Your task to perform on an android device: Add logitech g pro to the cart on ebay.com Image 0: 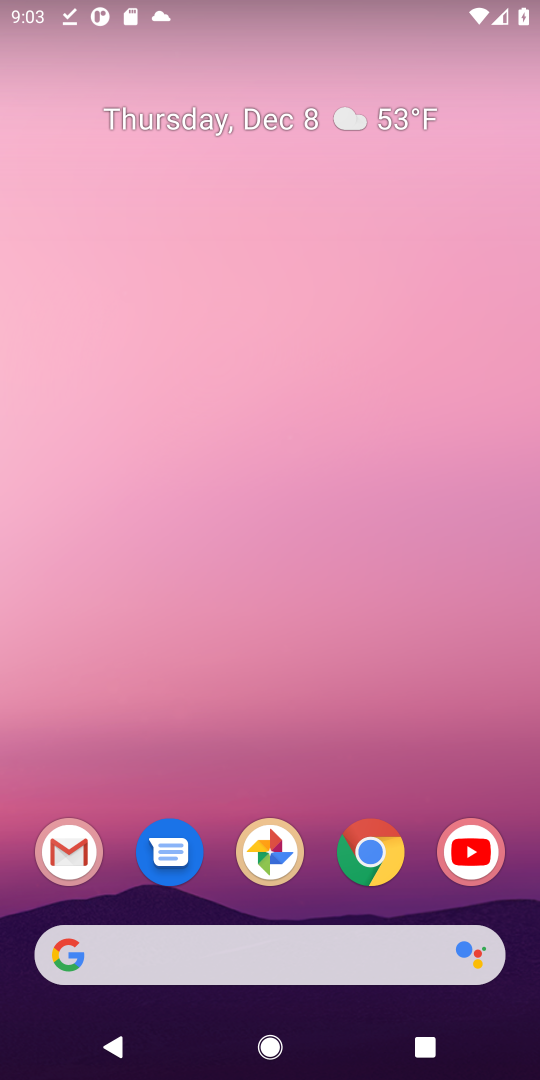
Step 0: click (200, 939)
Your task to perform on an android device: Add logitech g pro to the cart on ebay.com Image 1: 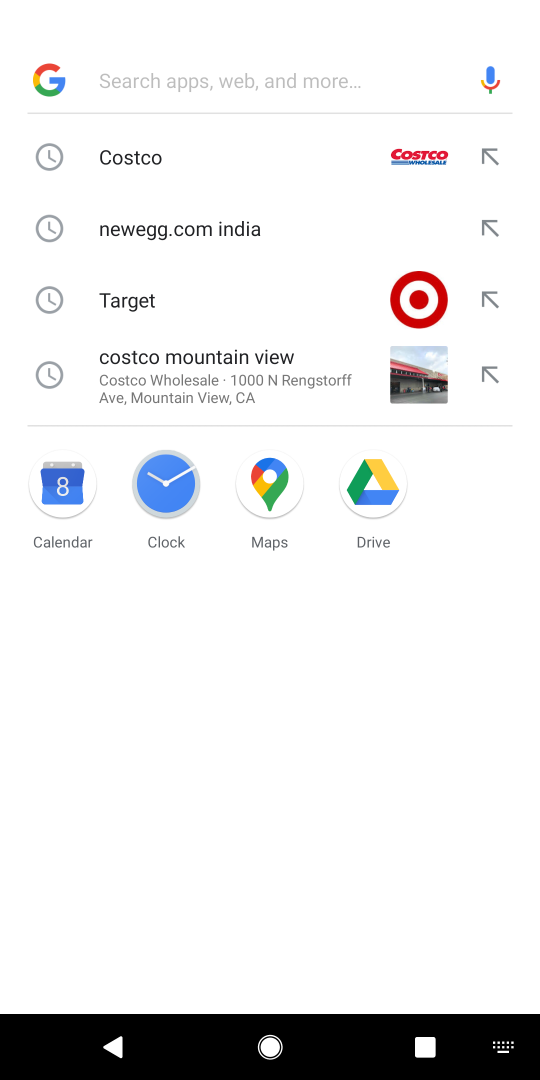
Step 1: type "ebay.com"
Your task to perform on an android device: Add logitech g pro to the cart on ebay.com Image 2: 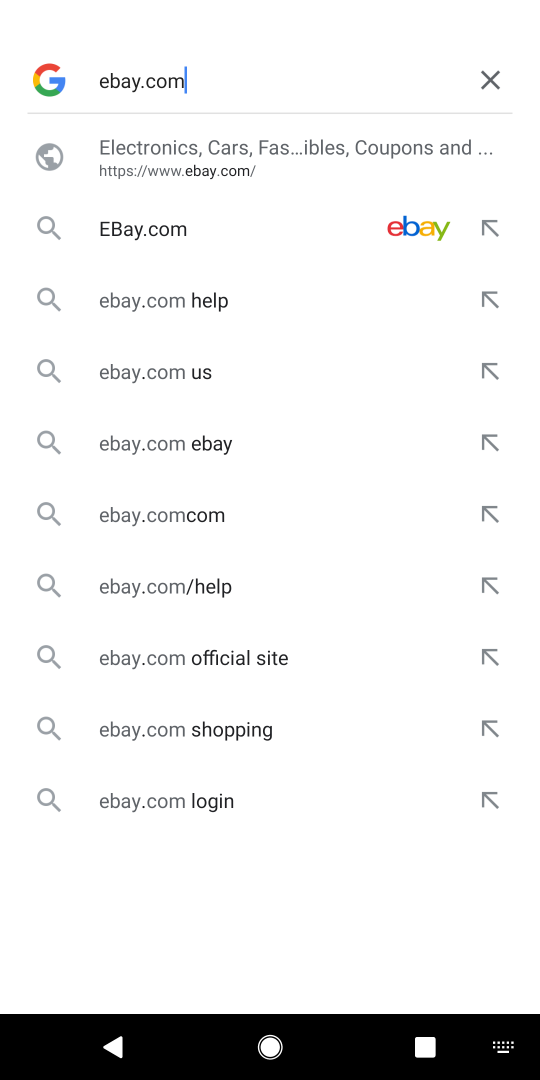
Step 2: click (213, 241)
Your task to perform on an android device: Add logitech g pro to the cart on ebay.com Image 3: 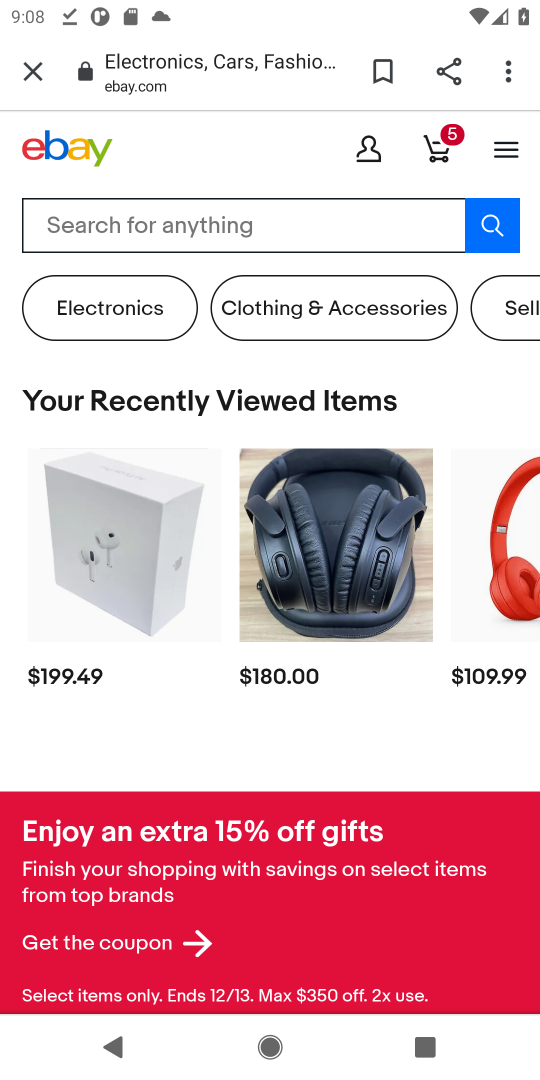
Step 3: click (213, 241)
Your task to perform on an android device: Add logitech g pro to the cart on ebay.com Image 4: 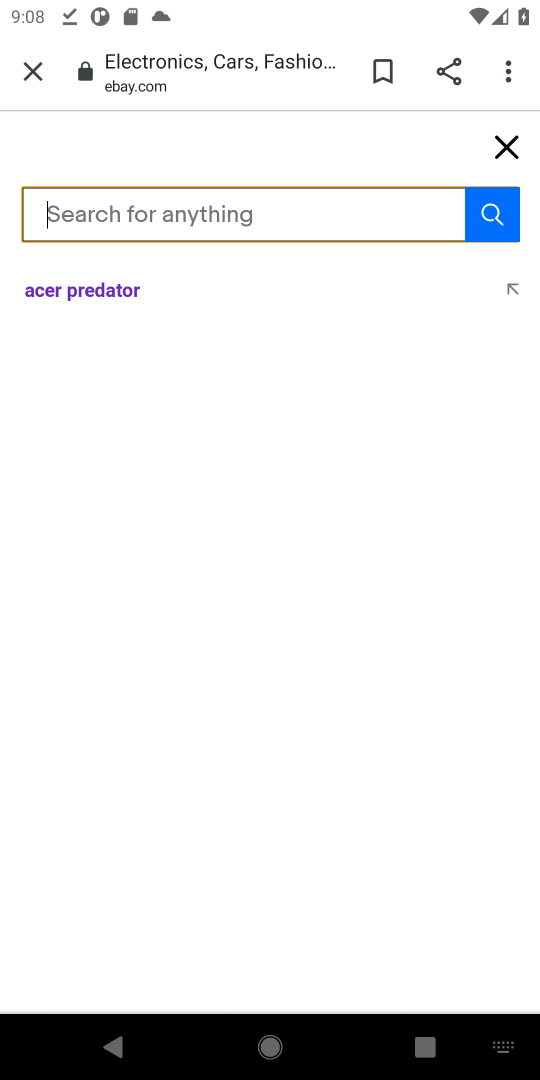
Step 4: type "ebay.com"
Your task to perform on an android device: Add logitech g pro to the cart on ebay.com Image 5: 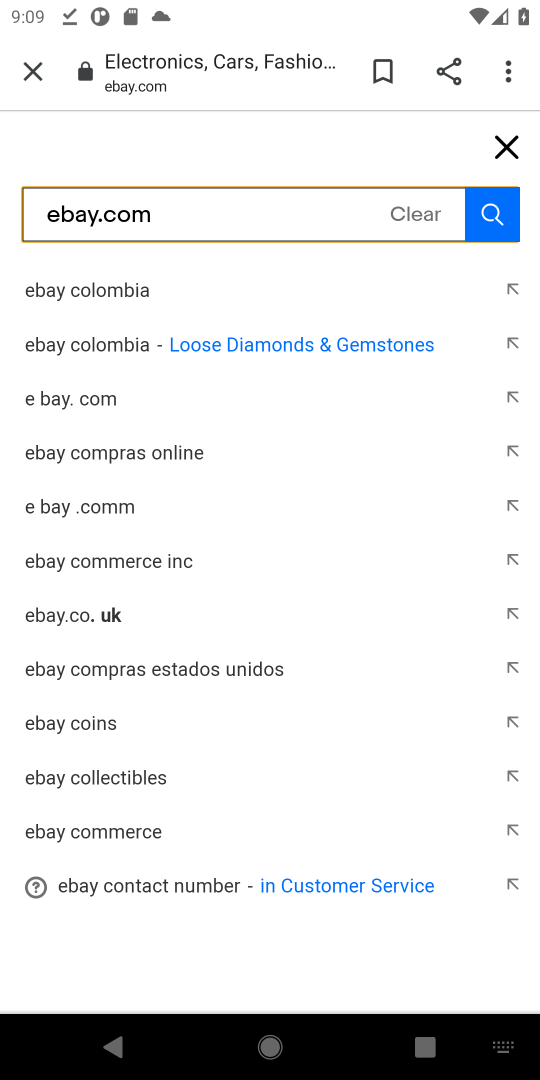
Step 5: click (425, 215)
Your task to perform on an android device: Add logitech g pro to the cart on ebay.com Image 6: 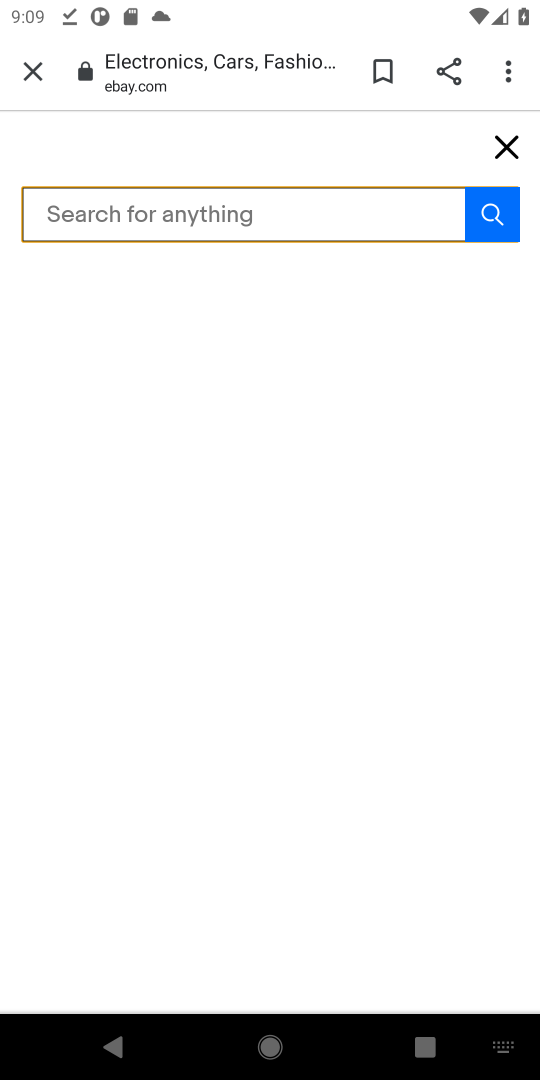
Step 6: type "logitech g pro"
Your task to perform on an android device: Add logitech g pro to the cart on ebay.com Image 7: 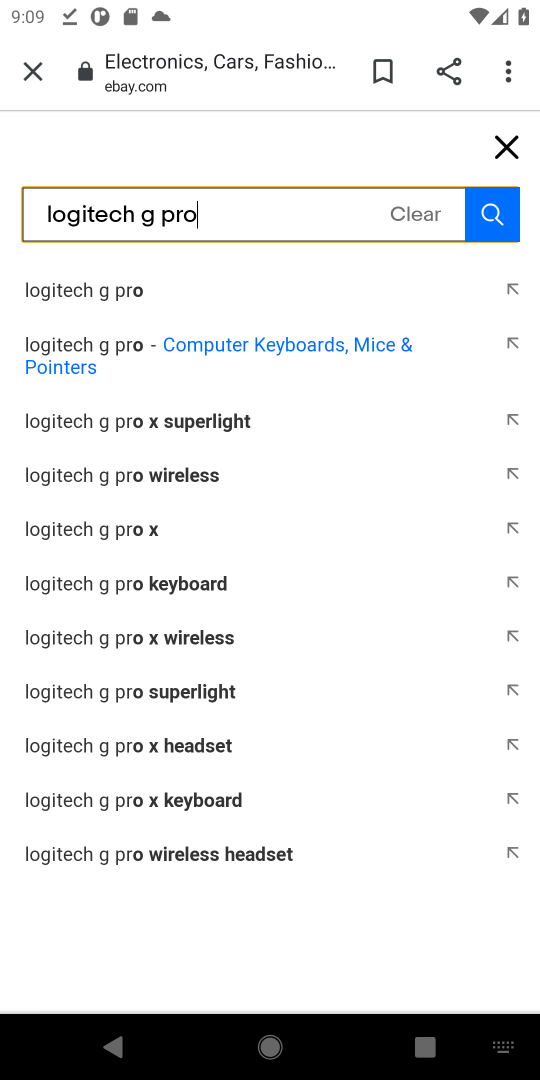
Step 7: click (79, 306)
Your task to perform on an android device: Add logitech g pro to the cart on ebay.com Image 8: 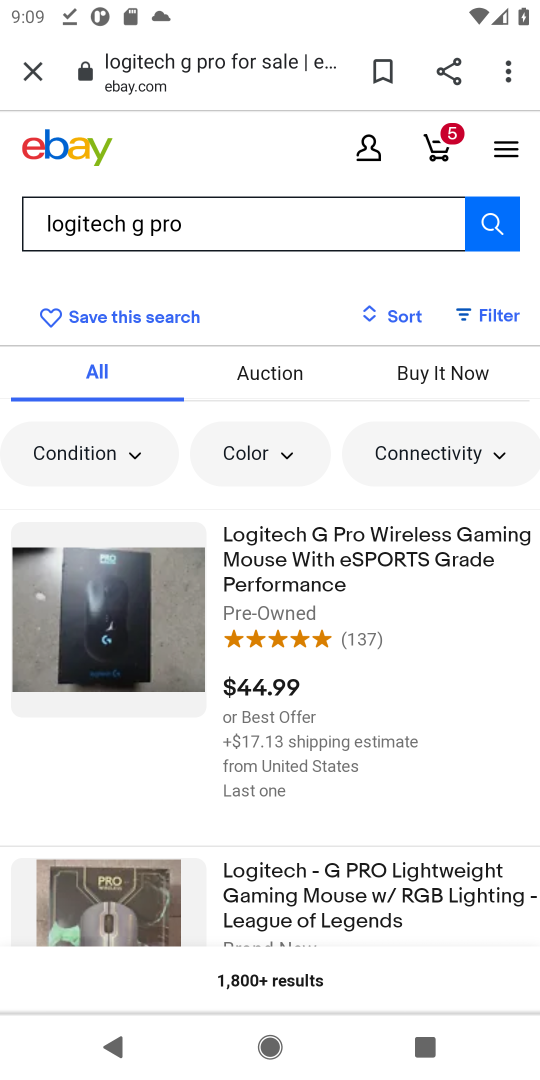
Step 8: click (286, 562)
Your task to perform on an android device: Add logitech g pro to the cart on ebay.com Image 9: 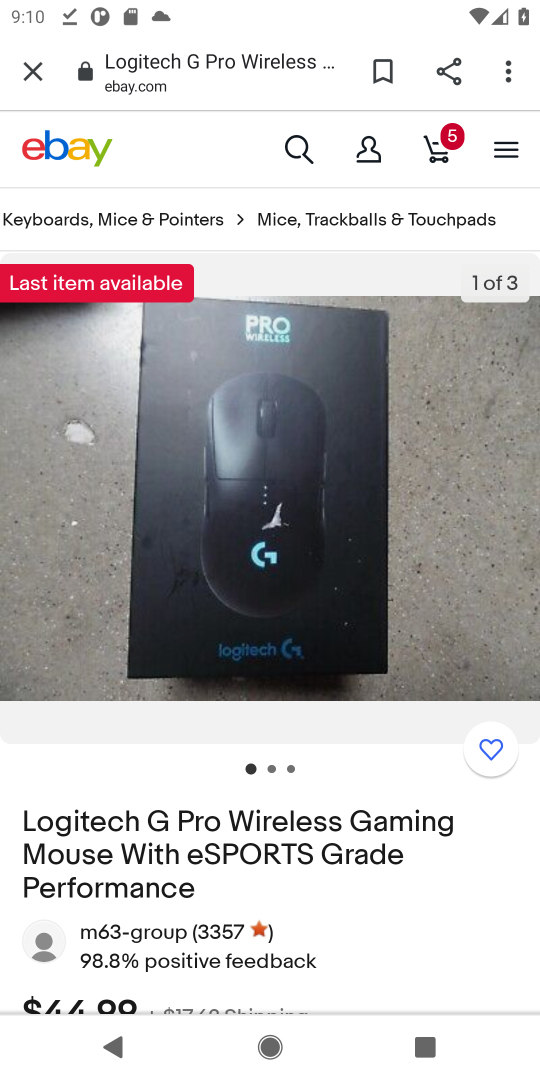
Step 9: task complete